Your task to perform on an android device: turn on showing notifications on the lock screen Image 0: 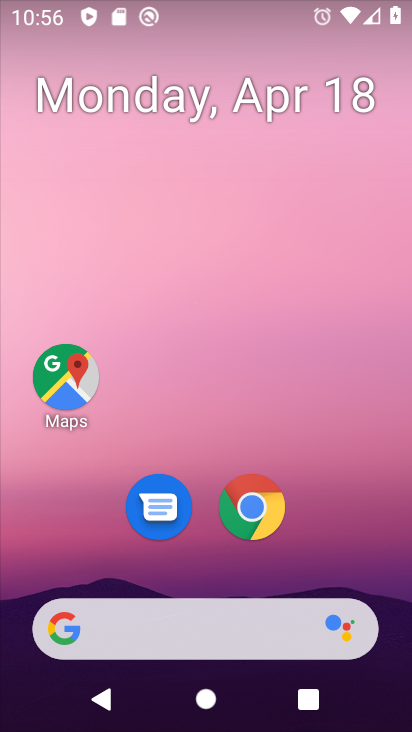
Step 0: click (289, 309)
Your task to perform on an android device: turn on showing notifications on the lock screen Image 1: 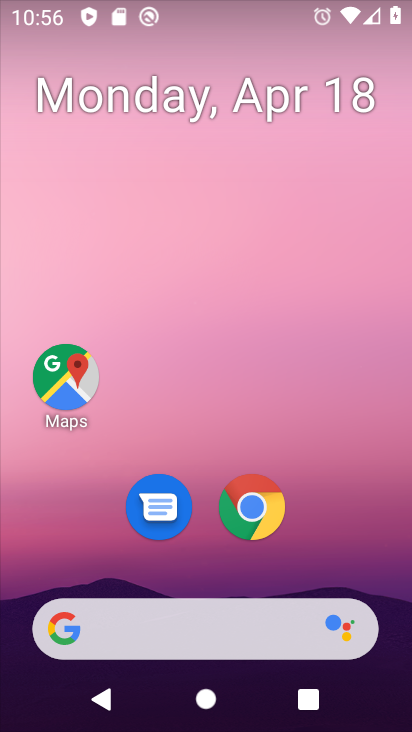
Step 1: drag from (290, 662) to (269, 27)
Your task to perform on an android device: turn on showing notifications on the lock screen Image 2: 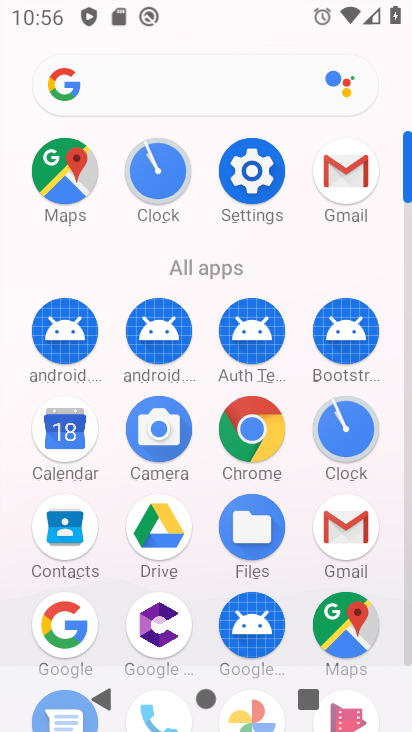
Step 2: click (272, 164)
Your task to perform on an android device: turn on showing notifications on the lock screen Image 3: 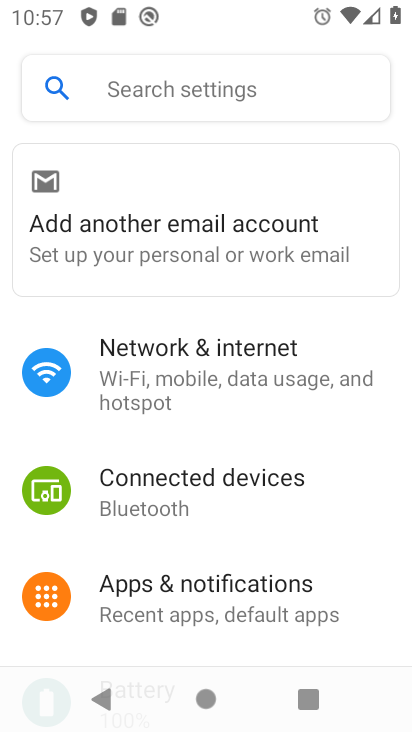
Step 3: click (150, 98)
Your task to perform on an android device: turn on showing notifications on the lock screen Image 4: 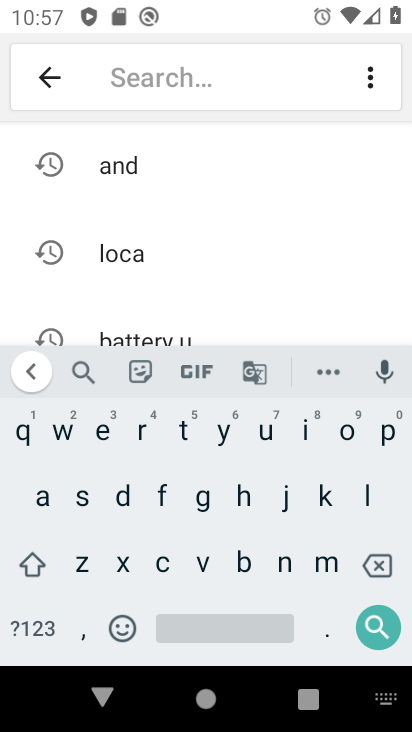
Step 4: click (371, 495)
Your task to perform on an android device: turn on showing notifications on the lock screen Image 5: 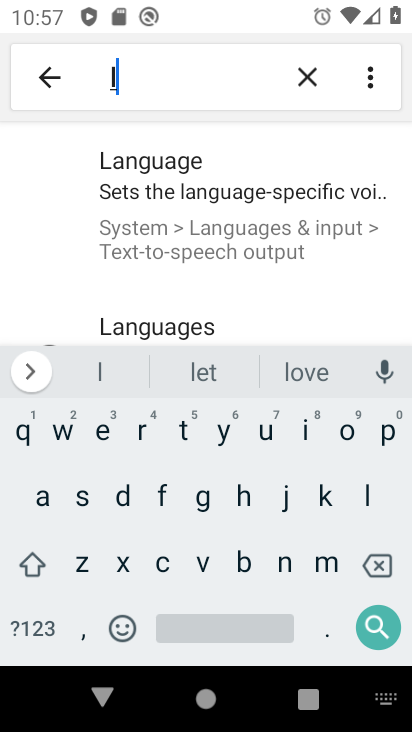
Step 5: click (342, 434)
Your task to perform on an android device: turn on showing notifications on the lock screen Image 6: 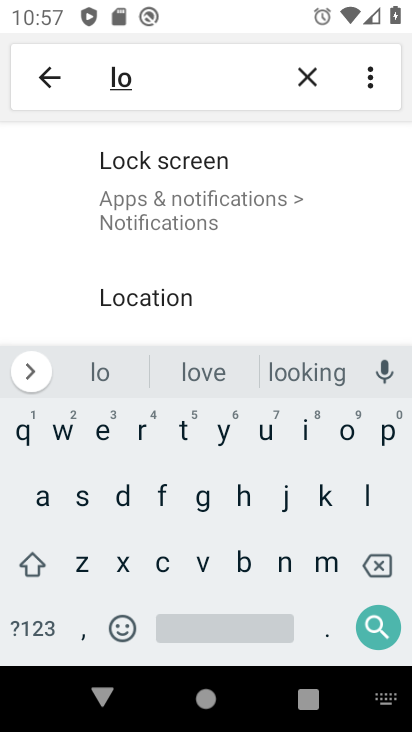
Step 6: click (198, 210)
Your task to perform on an android device: turn on showing notifications on the lock screen Image 7: 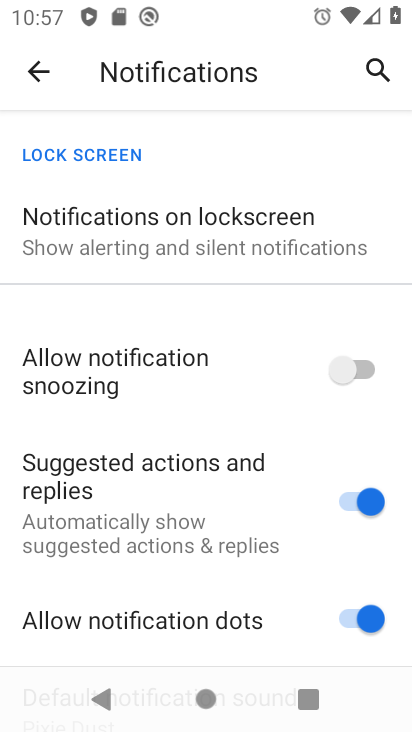
Step 7: click (178, 221)
Your task to perform on an android device: turn on showing notifications on the lock screen Image 8: 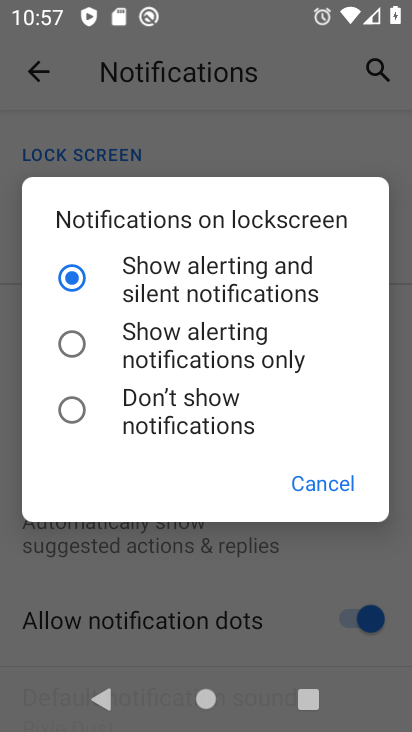
Step 8: task complete